Your task to perform on an android device: read, delete, or share a saved page in the chrome app Image 0: 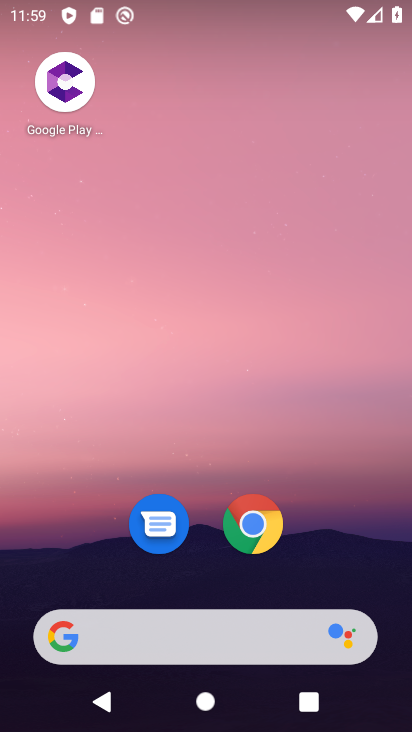
Step 0: click (268, 509)
Your task to perform on an android device: read, delete, or share a saved page in the chrome app Image 1: 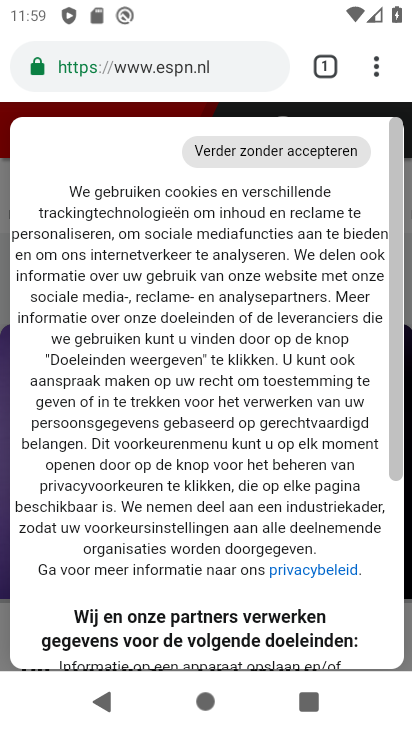
Step 1: click (374, 69)
Your task to perform on an android device: read, delete, or share a saved page in the chrome app Image 2: 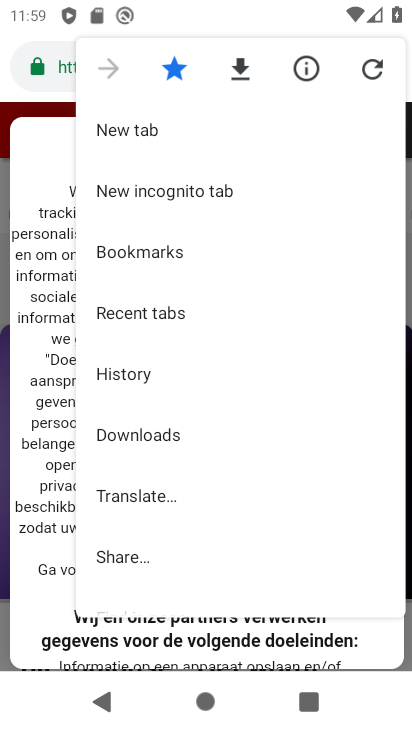
Step 2: click (166, 430)
Your task to perform on an android device: read, delete, or share a saved page in the chrome app Image 3: 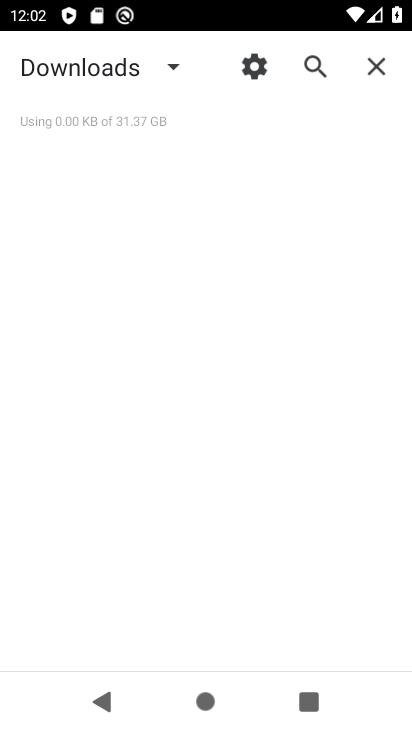
Step 3: task complete